Your task to perform on an android device: delete the emails in spam in the gmail app Image 0: 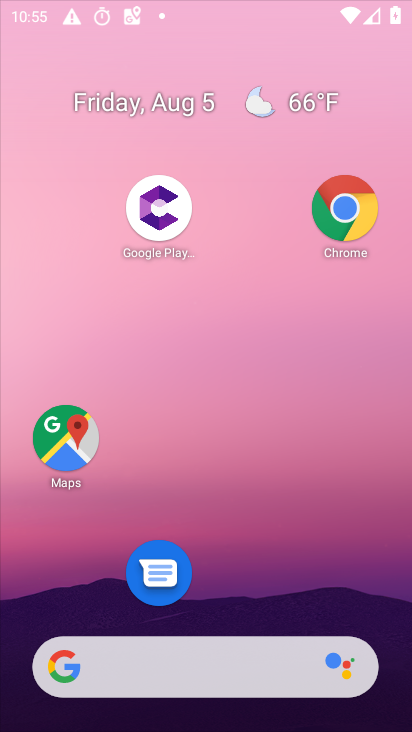
Step 0: press home button
Your task to perform on an android device: delete the emails in spam in the gmail app Image 1: 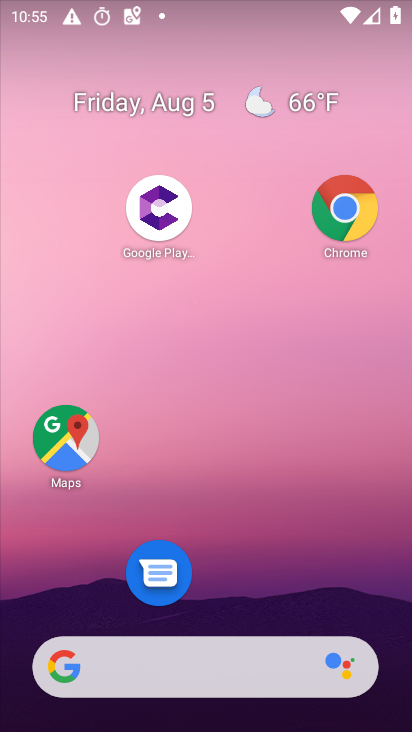
Step 1: drag from (230, 609) to (239, 53)
Your task to perform on an android device: delete the emails in spam in the gmail app Image 2: 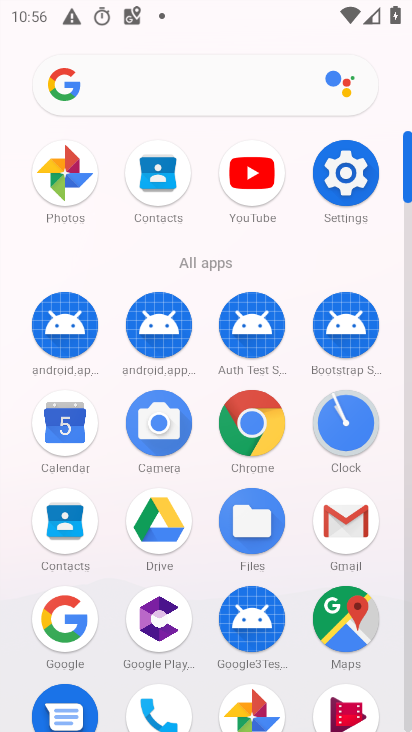
Step 2: click (342, 510)
Your task to perform on an android device: delete the emails in spam in the gmail app Image 3: 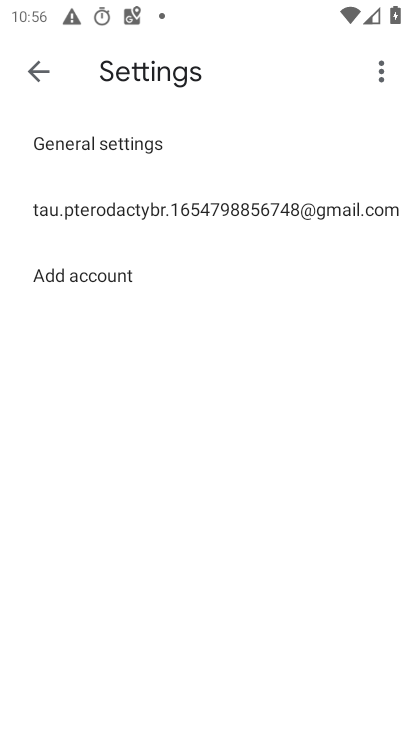
Step 3: click (40, 72)
Your task to perform on an android device: delete the emails in spam in the gmail app Image 4: 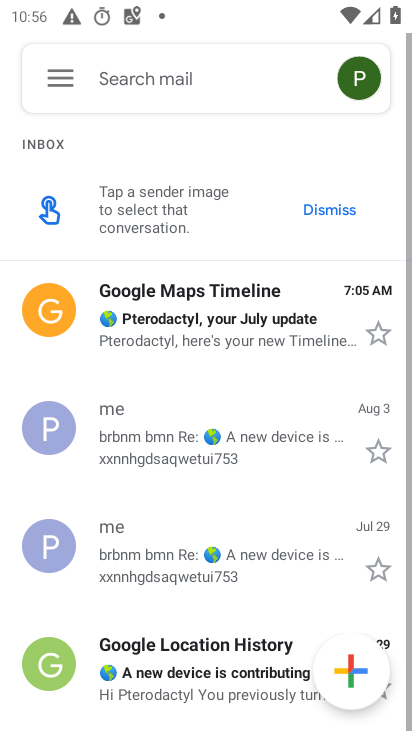
Step 4: click (56, 79)
Your task to perform on an android device: delete the emails in spam in the gmail app Image 5: 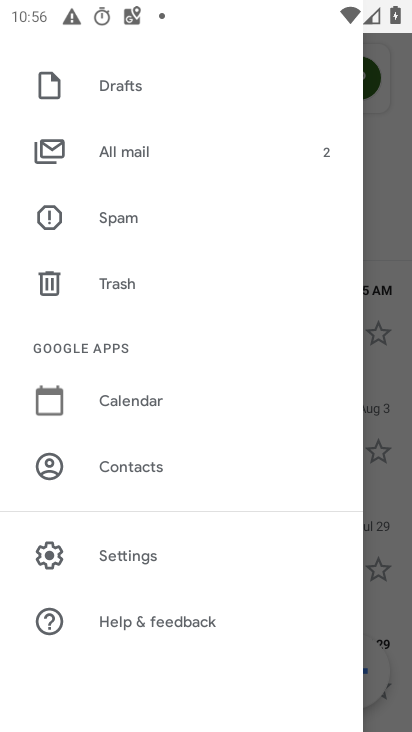
Step 5: click (83, 214)
Your task to perform on an android device: delete the emails in spam in the gmail app Image 6: 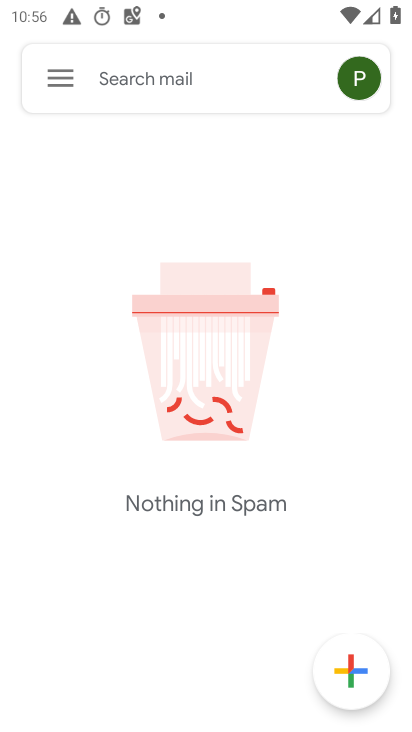
Step 6: task complete